Your task to perform on an android device: Show me the alarms in the clock app Image 0: 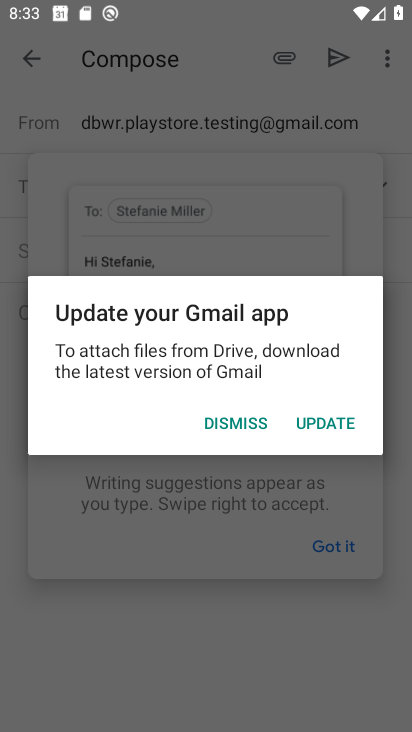
Step 0: press home button
Your task to perform on an android device: Show me the alarms in the clock app Image 1: 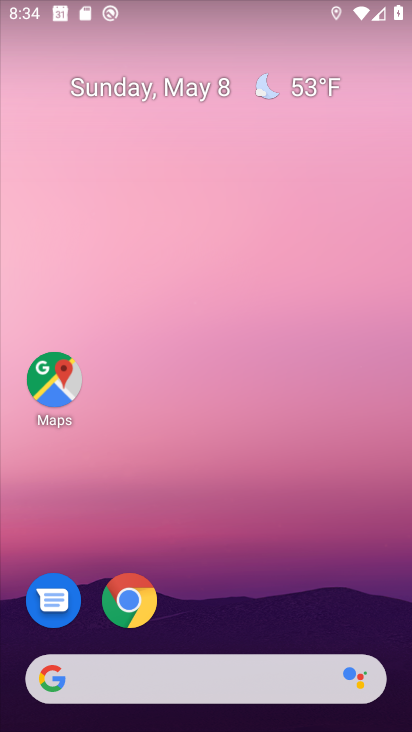
Step 1: drag from (237, 662) to (228, 328)
Your task to perform on an android device: Show me the alarms in the clock app Image 2: 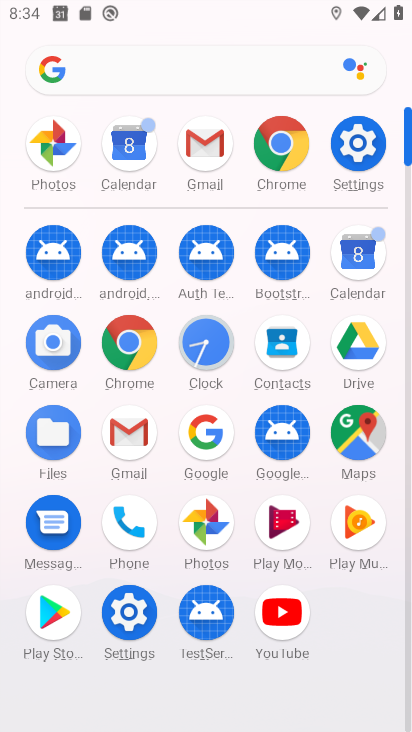
Step 2: click (202, 362)
Your task to perform on an android device: Show me the alarms in the clock app Image 3: 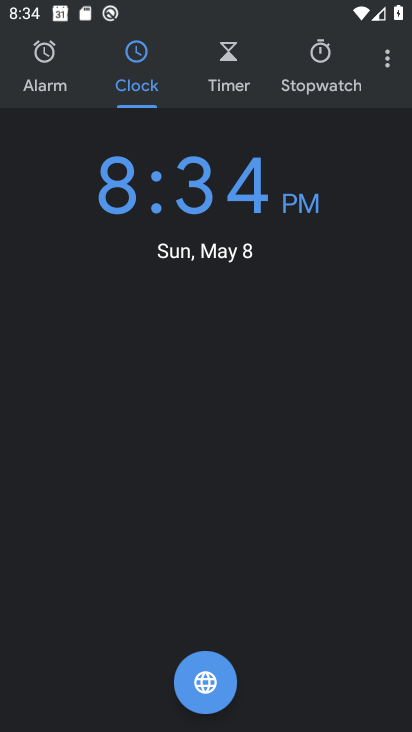
Step 3: click (47, 72)
Your task to perform on an android device: Show me the alarms in the clock app Image 4: 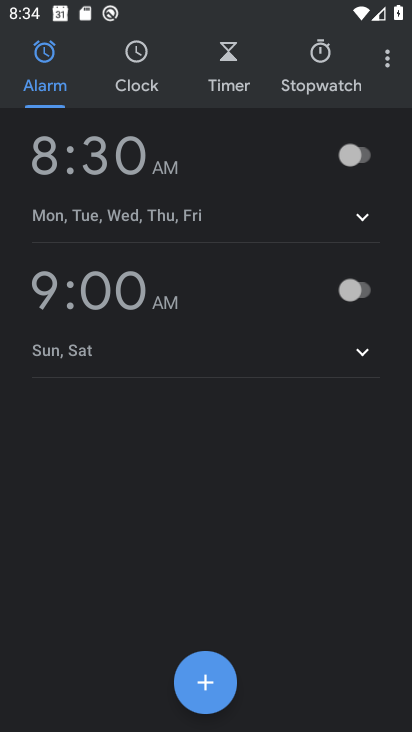
Step 4: task complete